Your task to perform on an android device: Open internet settings Image 0: 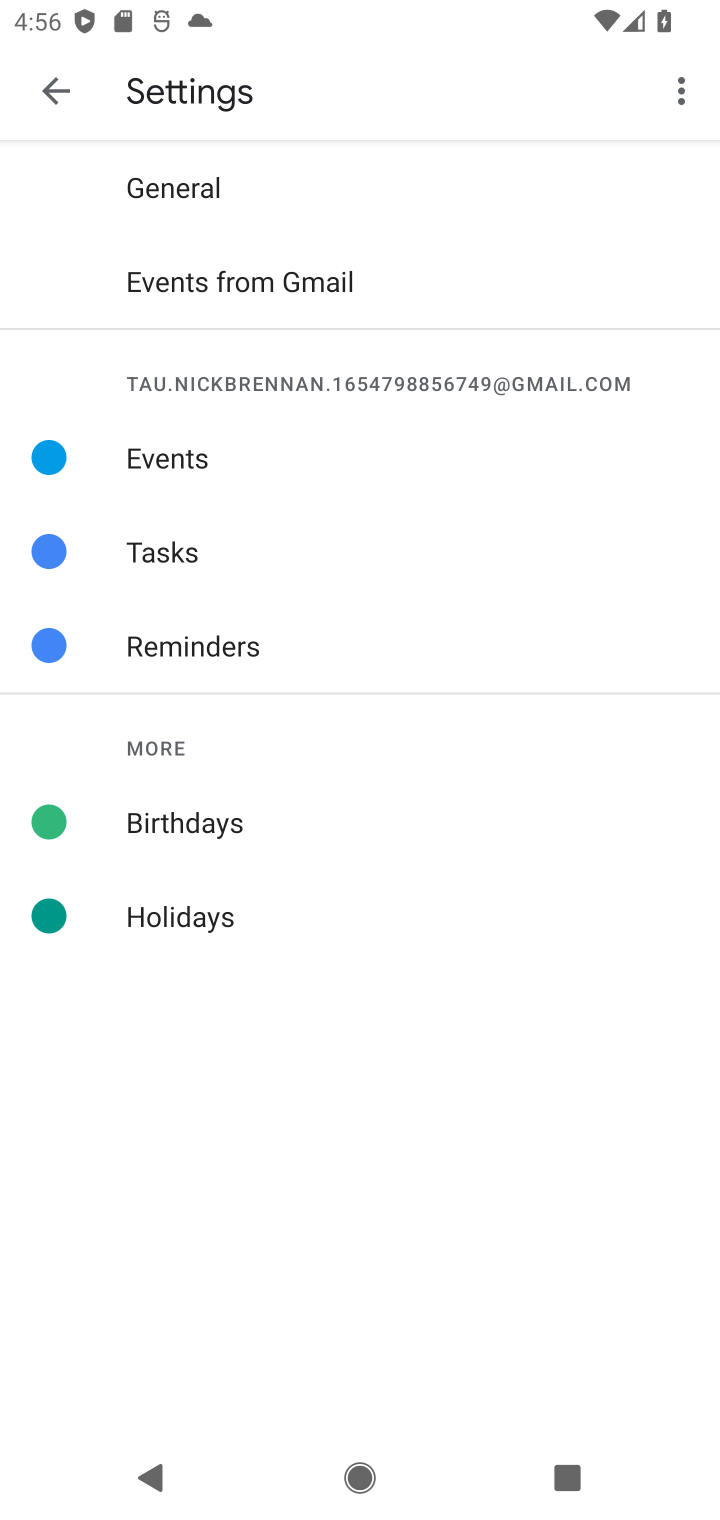
Step 0: press home button
Your task to perform on an android device: Open internet settings Image 1: 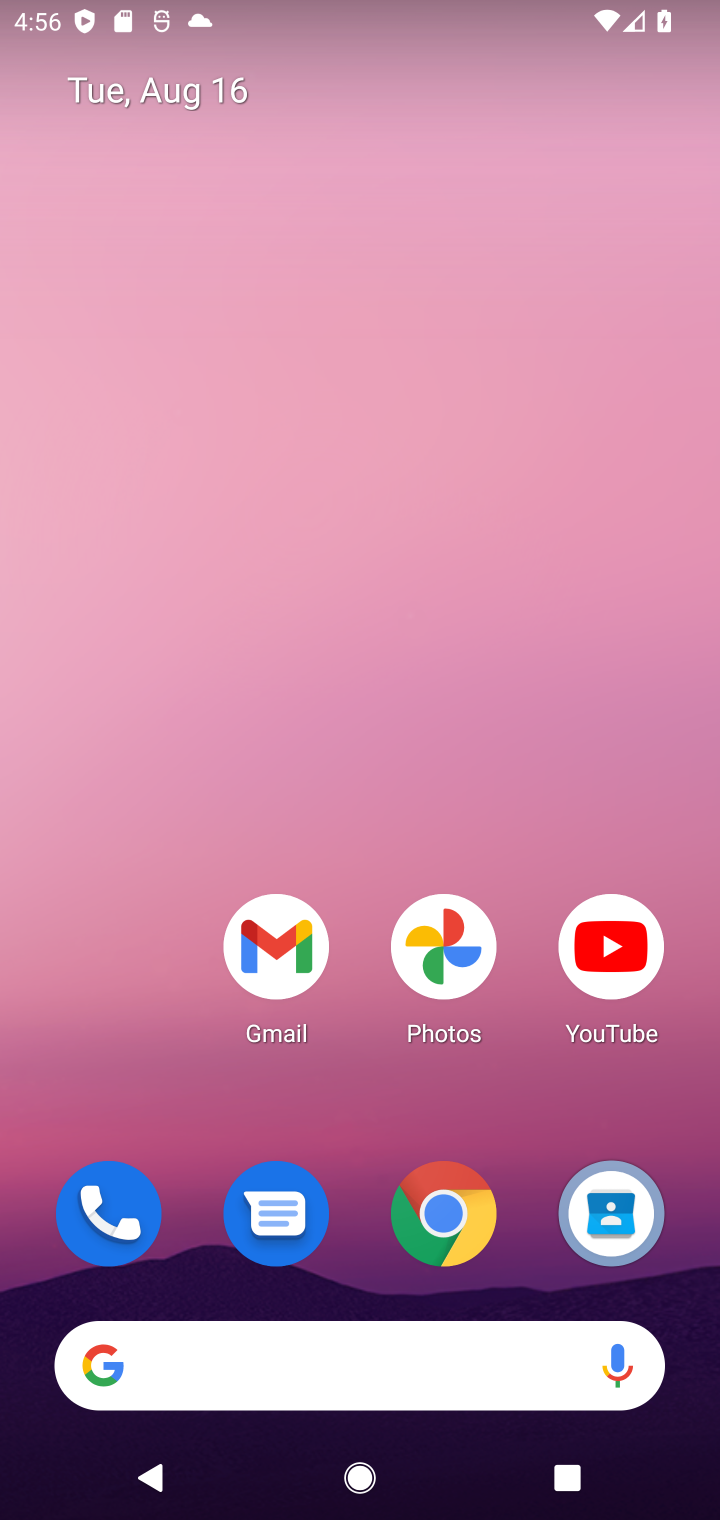
Step 1: drag from (483, 826) to (472, 209)
Your task to perform on an android device: Open internet settings Image 2: 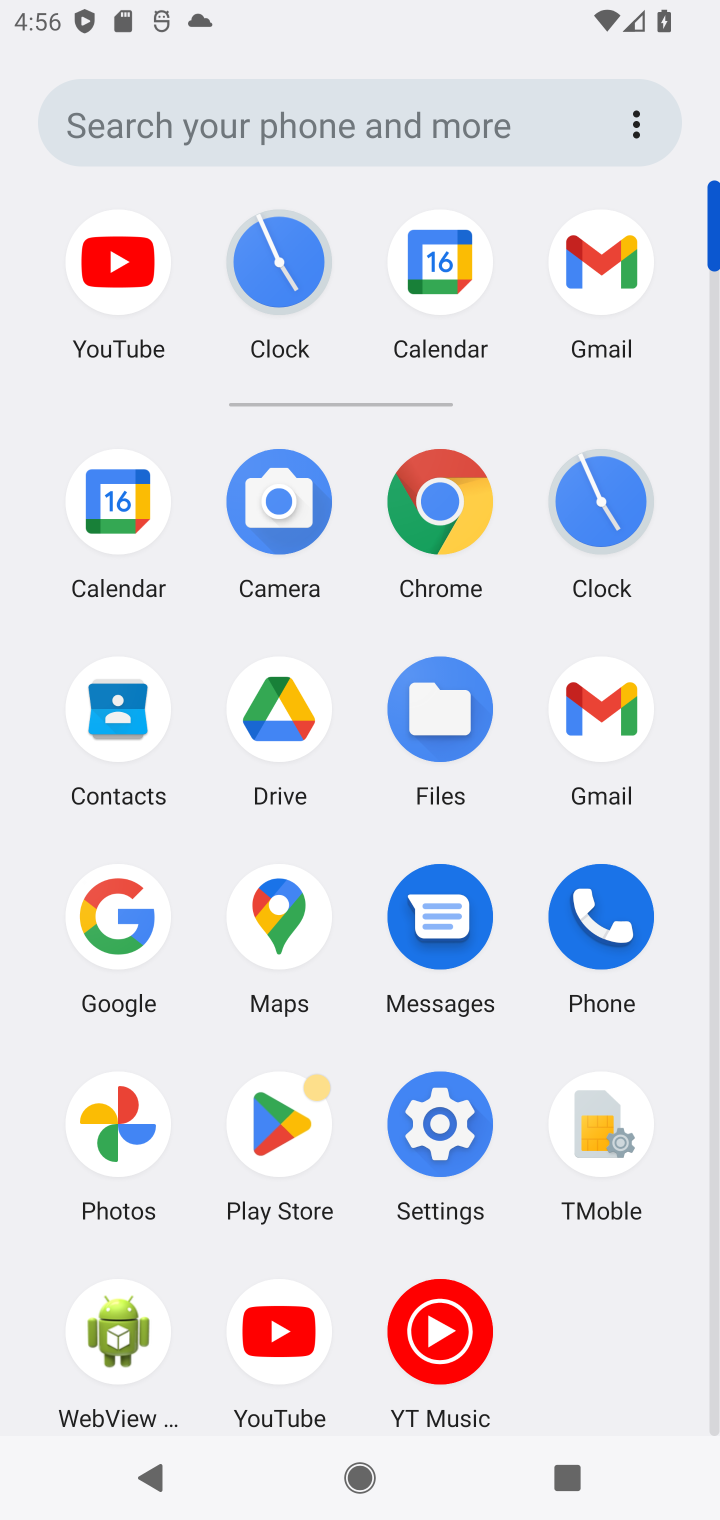
Step 2: click (457, 1094)
Your task to perform on an android device: Open internet settings Image 3: 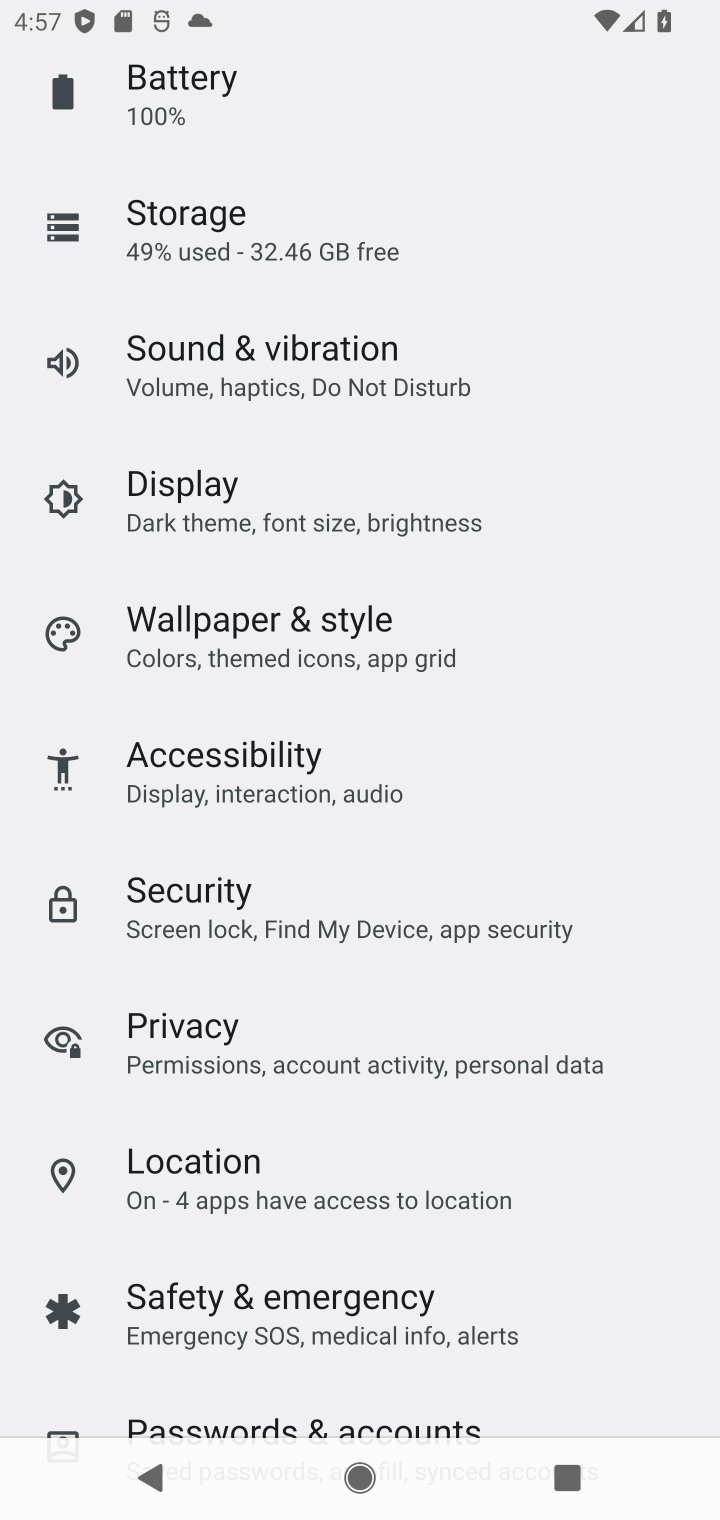
Step 3: drag from (395, 213) to (396, 1129)
Your task to perform on an android device: Open internet settings Image 4: 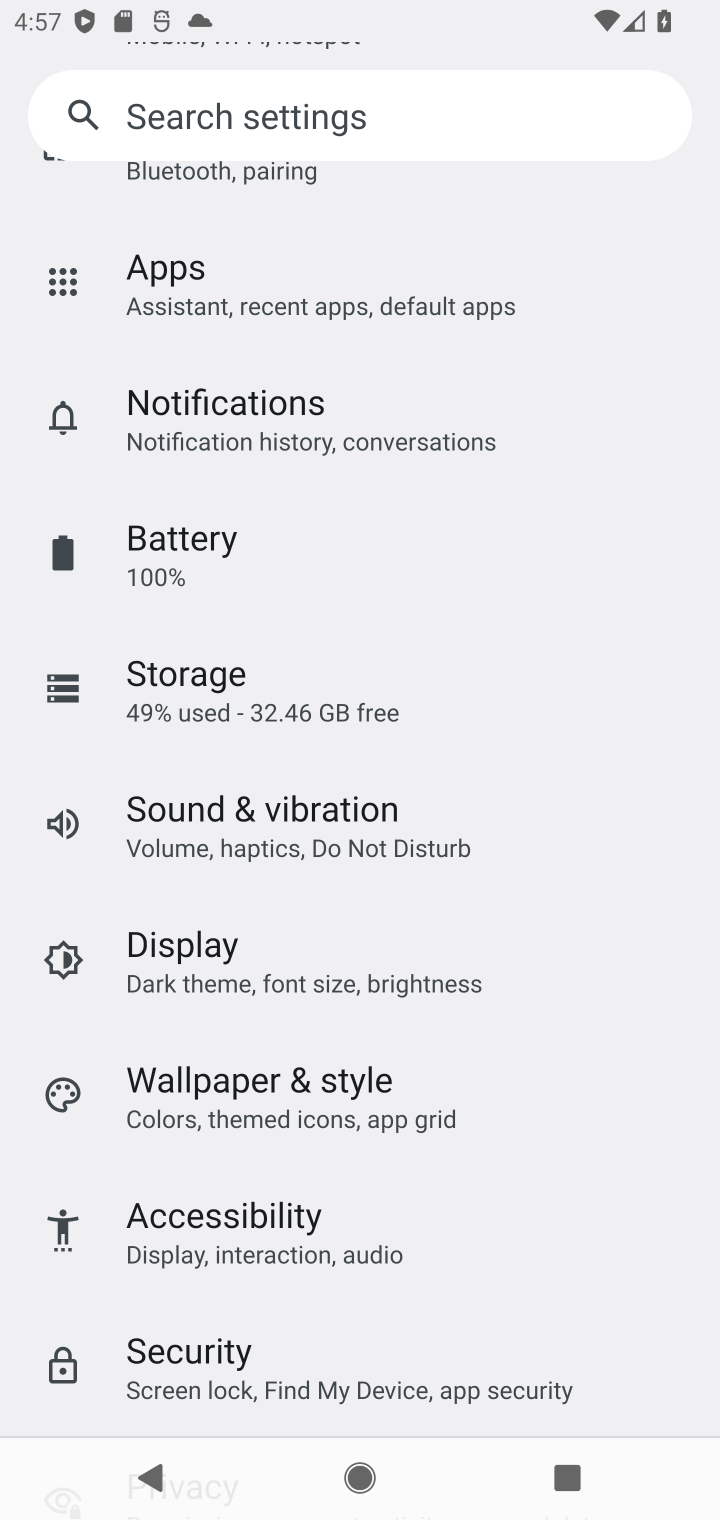
Step 4: drag from (462, 361) to (499, 963)
Your task to perform on an android device: Open internet settings Image 5: 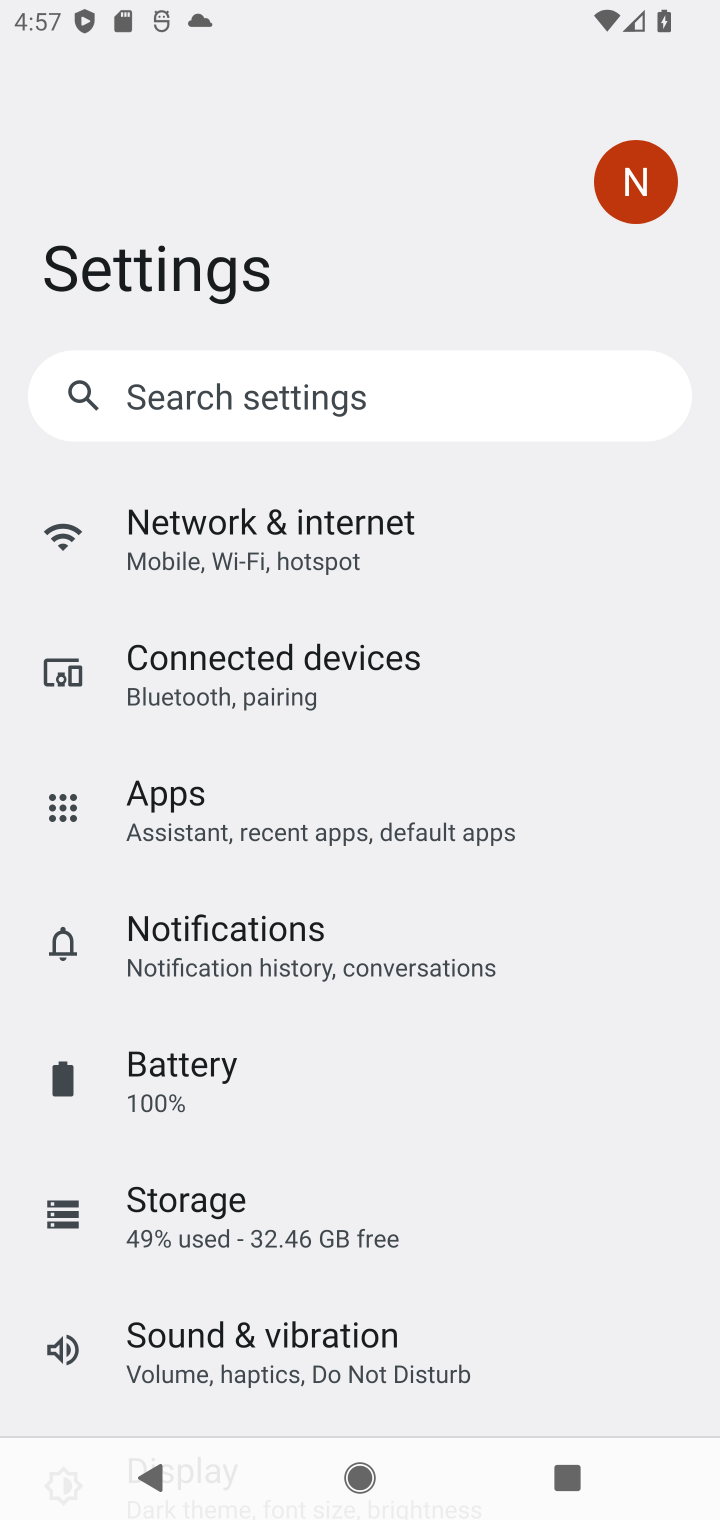
Step 5: click (268, 569)
Your task to perform on an android device: Open internet settings Image 6: 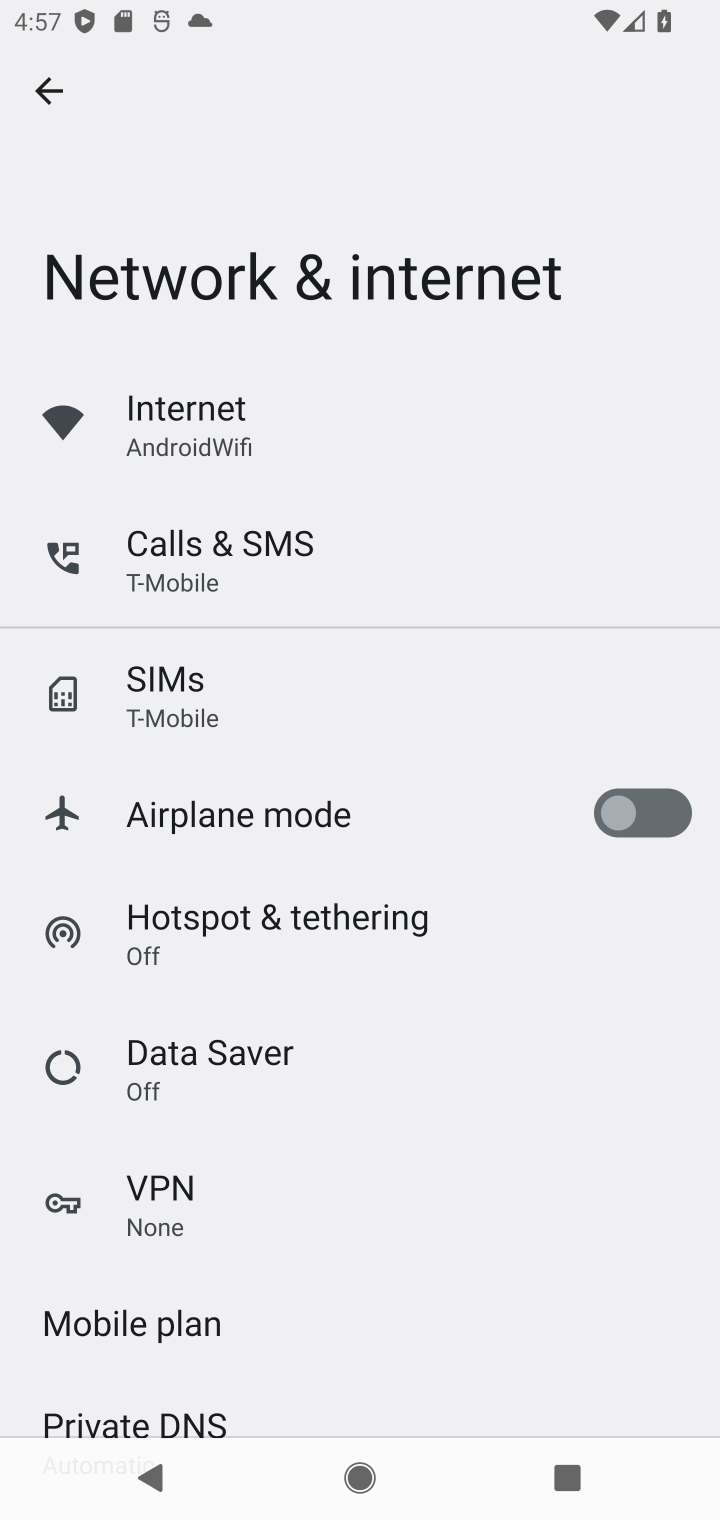
Step 6: drag from (367, 1139) to (352, 998)
Your task to perform on an android device: Open internet settings Image 7: 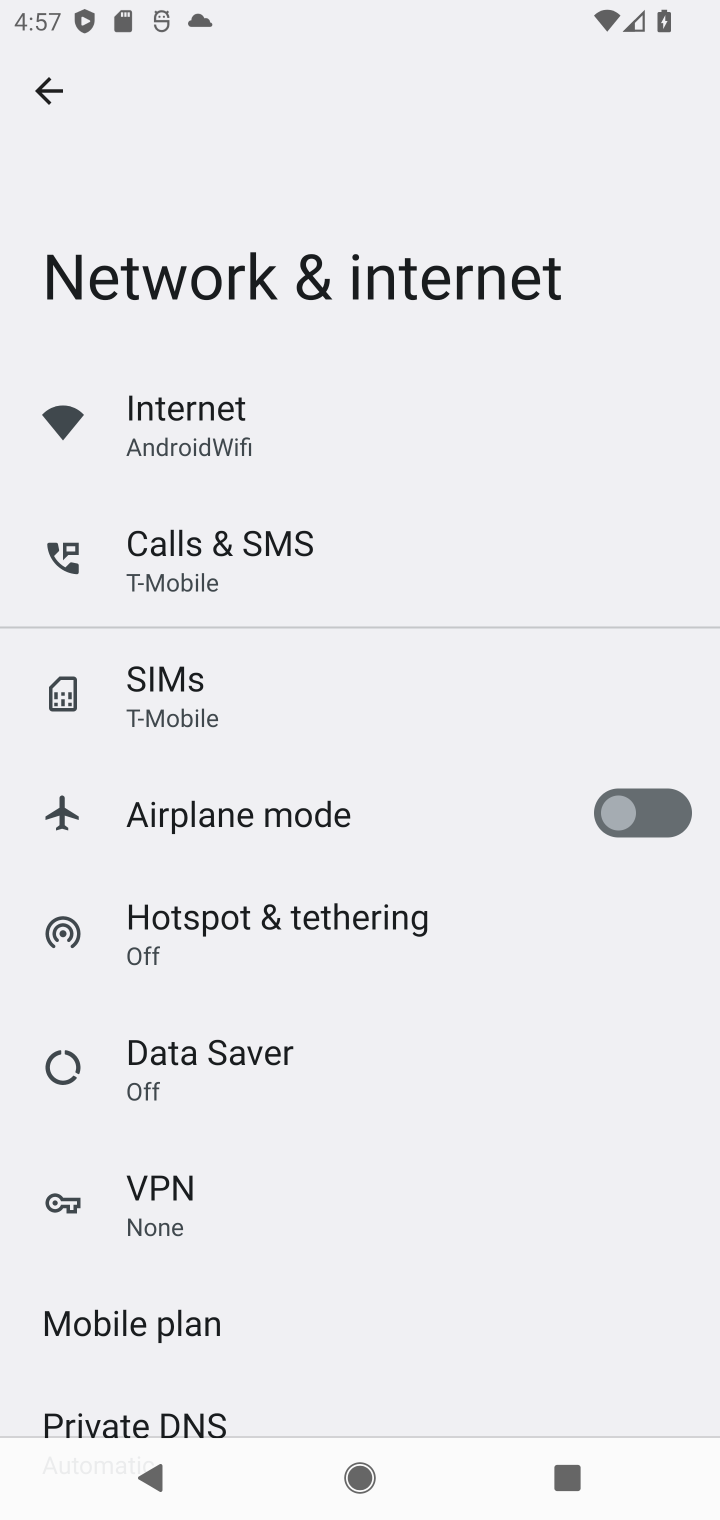
Step 7: click (194, 365)
Your task to perform on an android device: Open internet settings Image 8: 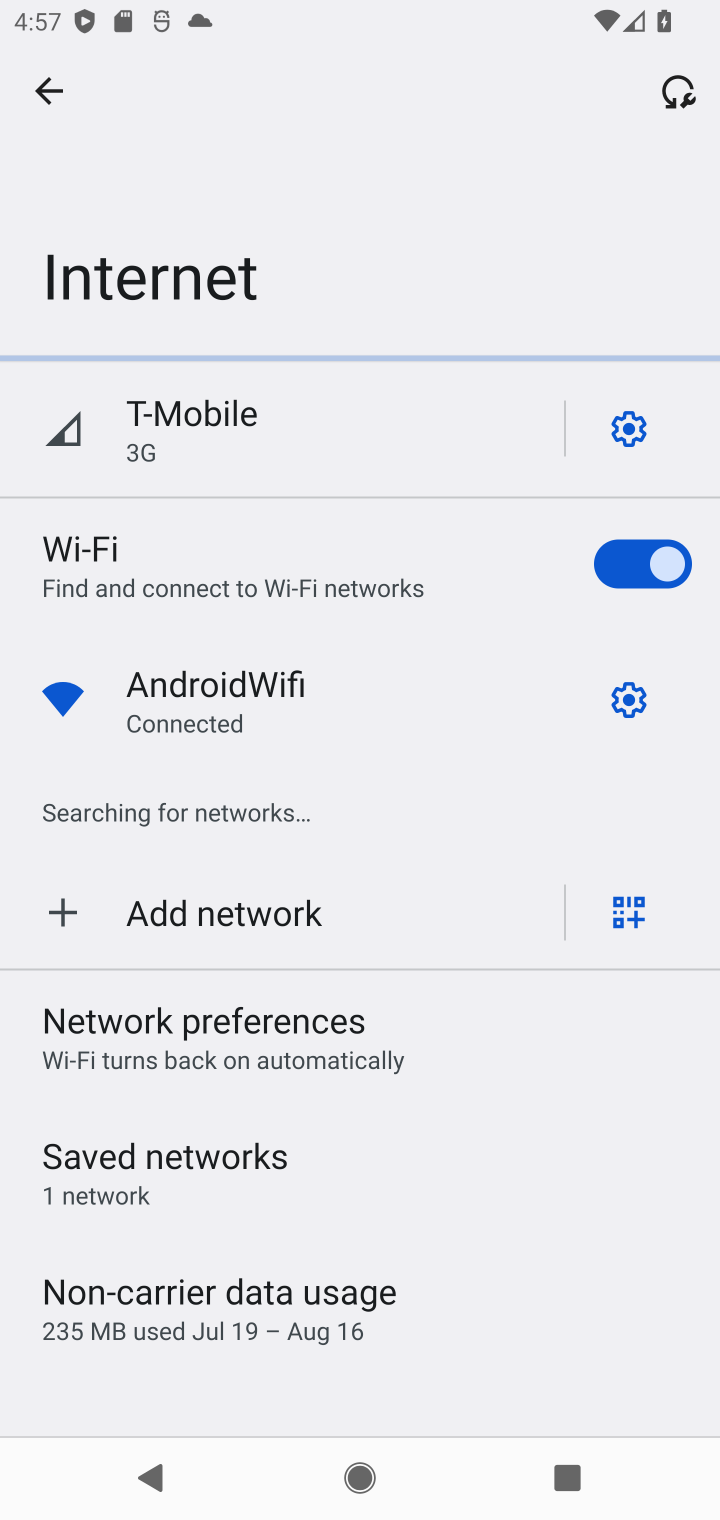
Step 8: task complete